Your task to perform on an android device: turn on wifi Image 0: 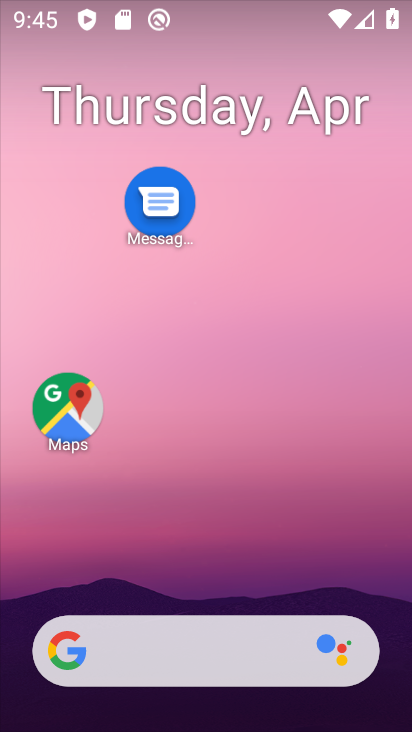
Step 0: drag from (224, 598) to (225, 60)
Your task to perform on an android device: turn on wifi Image 1: 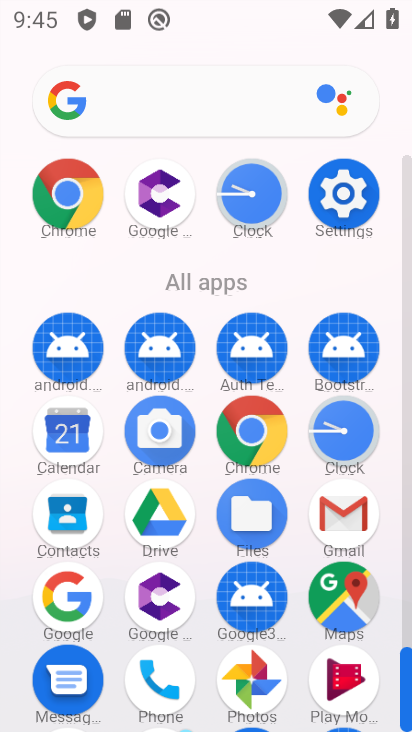
Step 1: click (332, 173)
Your task to perform on an android device: turn on wifi Image 2: 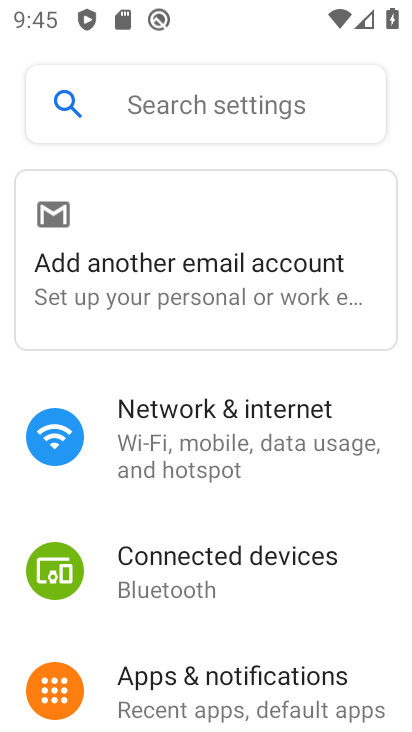
Step 2: click (206, 411)
Your task to perform on an android device: turn on wifi Image 3: 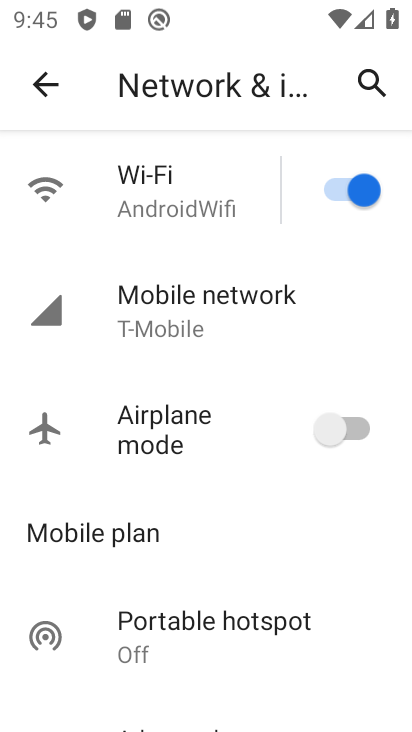
Step 3: task complete